Your task to perform on an android device: Search for vegetarian restaurants on Maps Image 0: 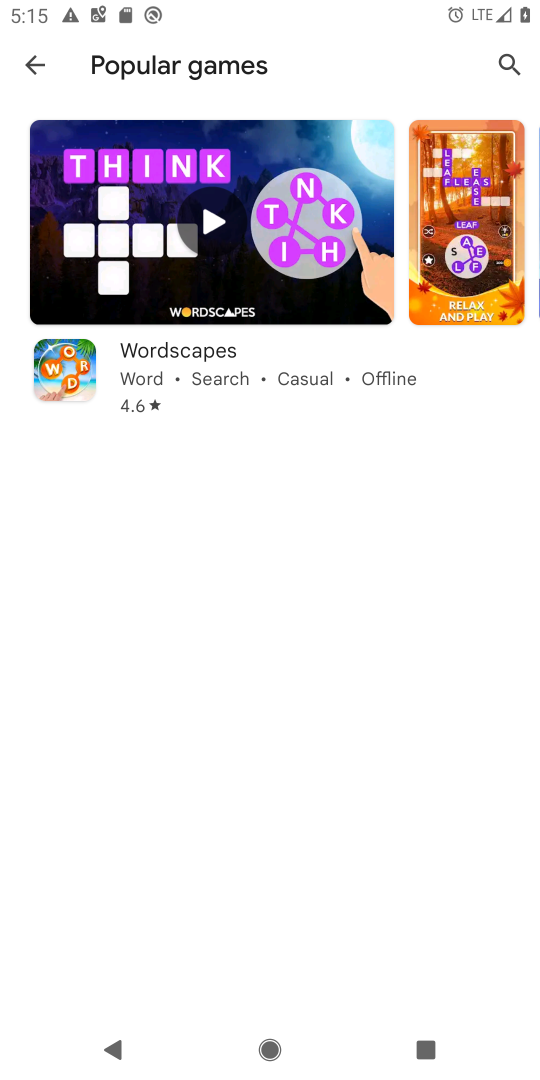
Step 0: press back button
Your task to perform on an android device: Search for vegetarian restaurants on Maps Image 1: 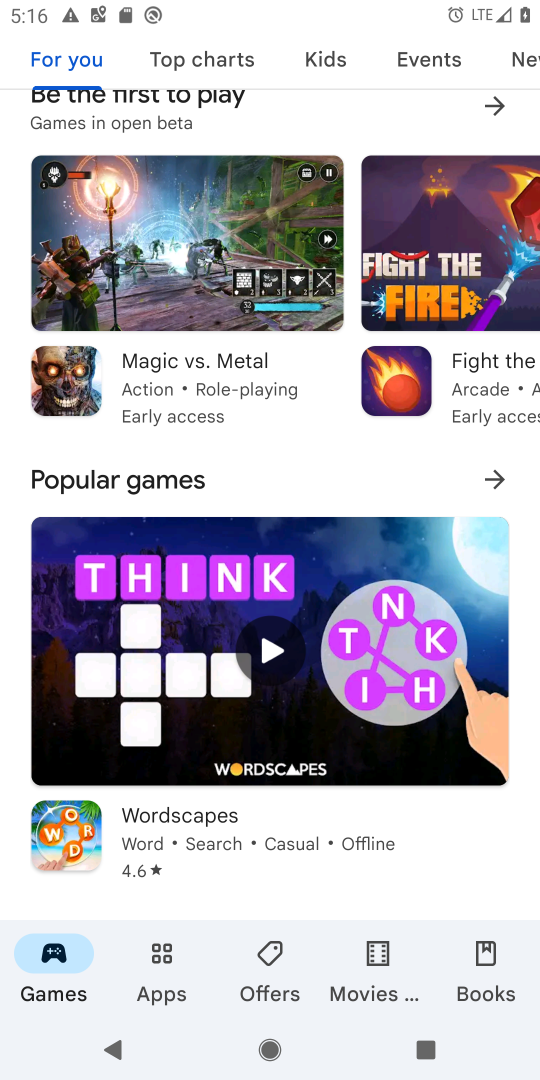
Step 1: press back button
Your task to perform on an android device: Search for vegetarian restaurants on Maps Image 2: 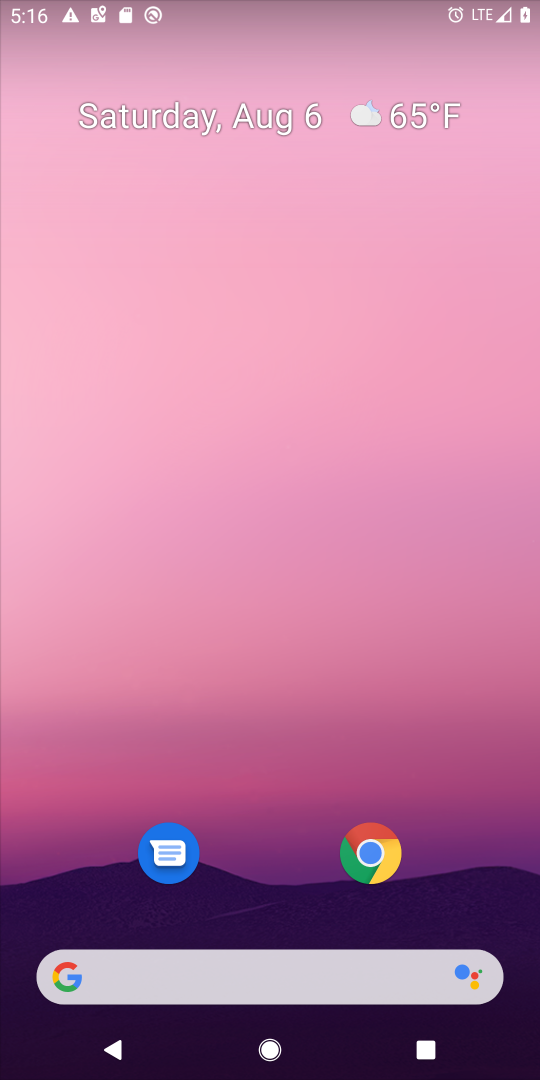
Step 2: drag from (278, 675) to (365, 31)
Your task to perform on an android device: Search for vegetarian restaurants on Maps Image 3: 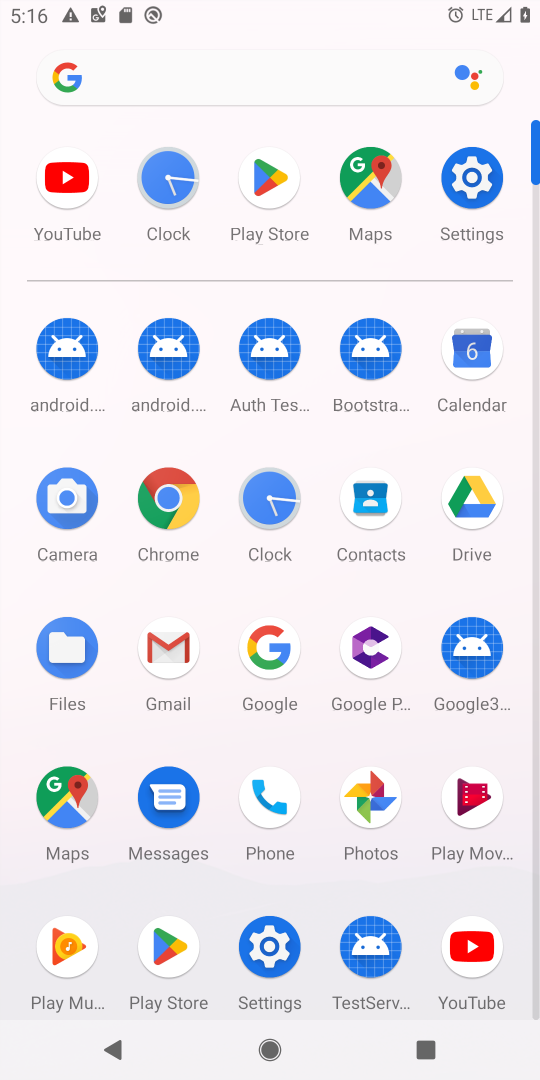
Step 3: click (373, 183)
Your task to perform on an android device: Search for vegetarian restaurants on Maps Image 4: 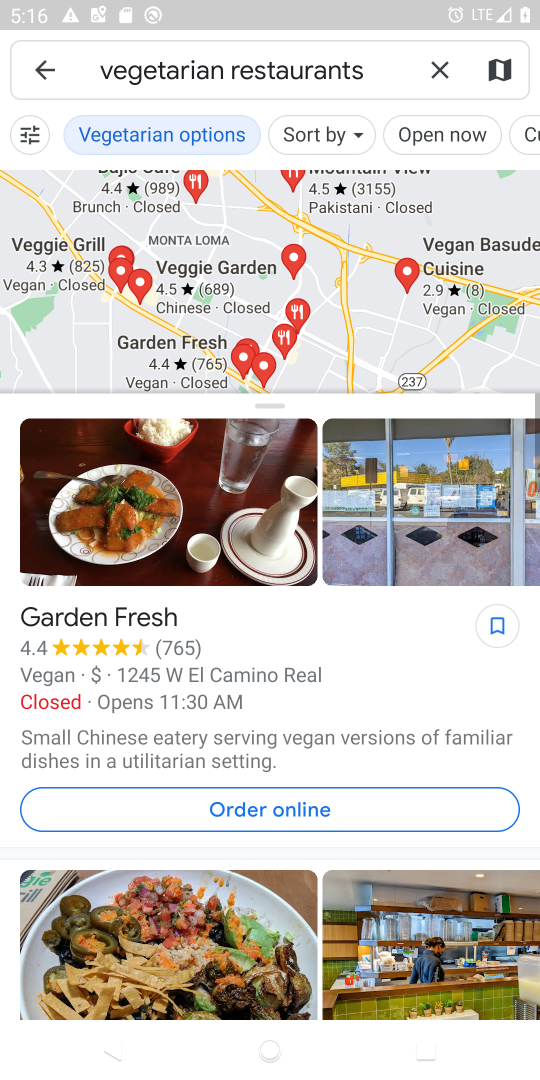
Step 4: task complete